Your task to perform on an android device: empty trash in google photos Image 0: 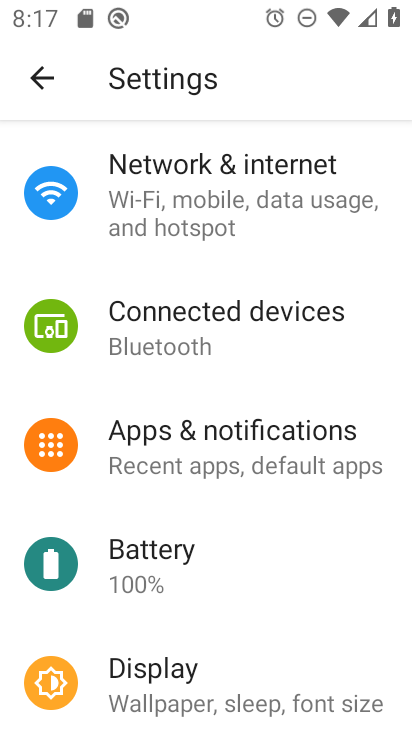
Step 0: press home button
Your task to perform on an android device: empty trash in google photos Image 1: 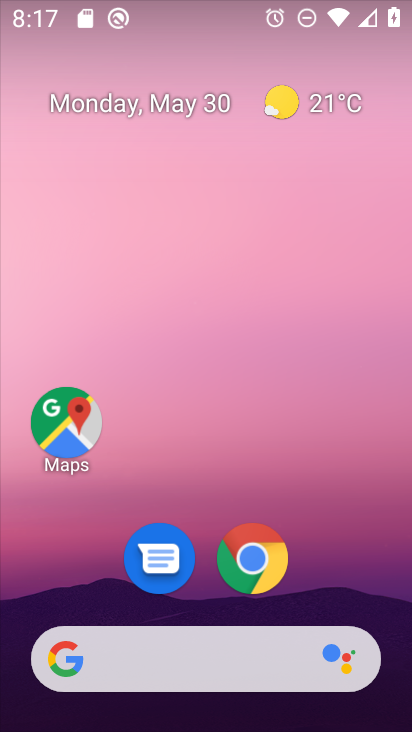
Step 1: drag from (322, 536) to (236, 67)
Your task to perform on an android device: empty trash in google photos Image 2: 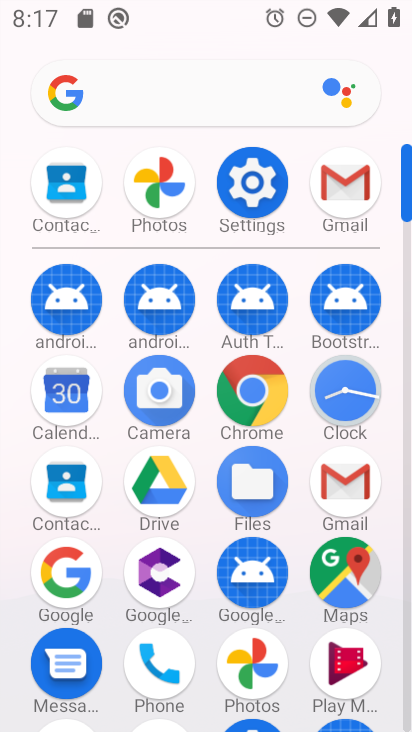
Step 2: click (157, 184)
Your task to perform on an android device: empty trash in google photos Image 3: 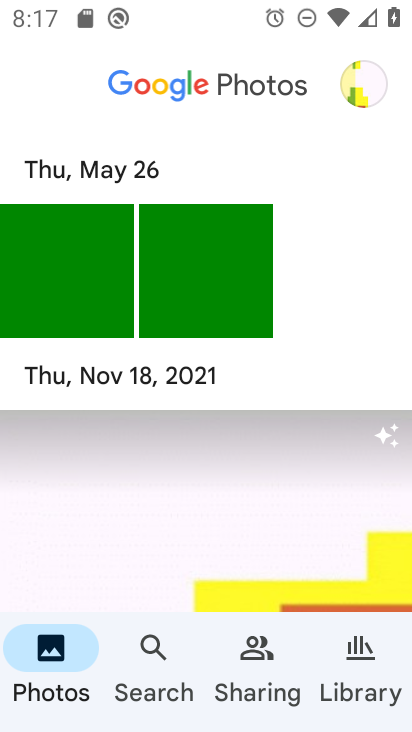
Step 3: click (352, 662)
Your task to perform on an android device: empty trash in google photos Image 4: 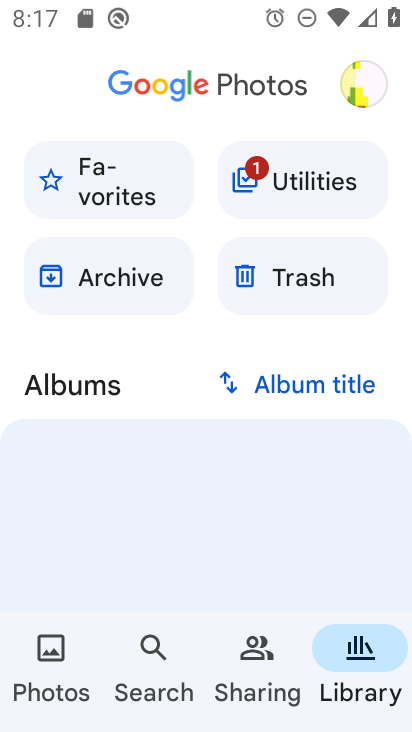
Step 4: click (292, 276)
Your task to perform on an android device: empty trash in google photos Image 5: 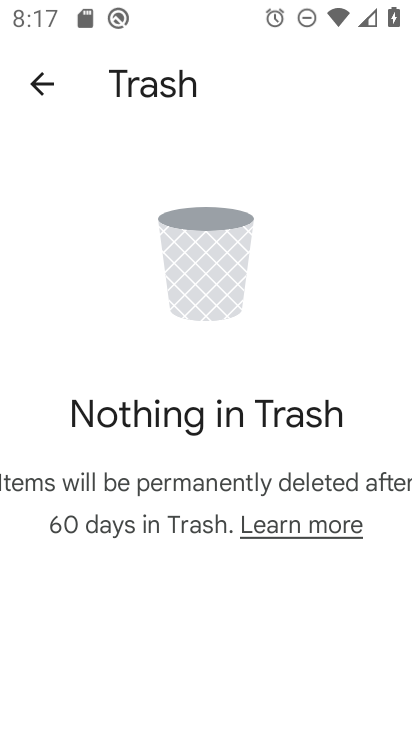
Step 5: task complete